Your task to perform on an android device: toggle notifications settings in the gmail app Image 0: 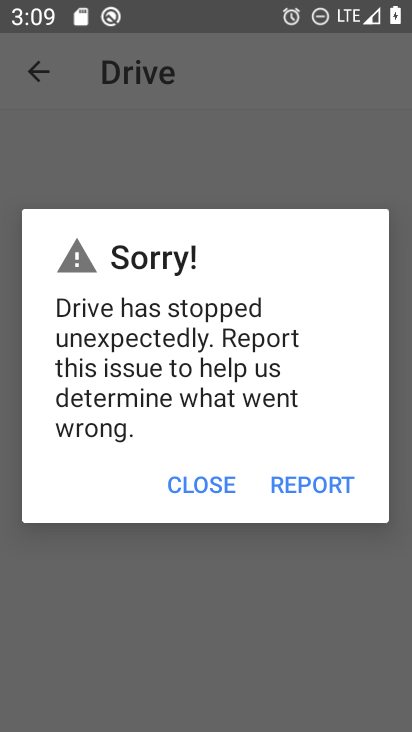
Step 0: press home button
Your task to perform on an android device: toggle notifications settings in the gmail app Image 1: 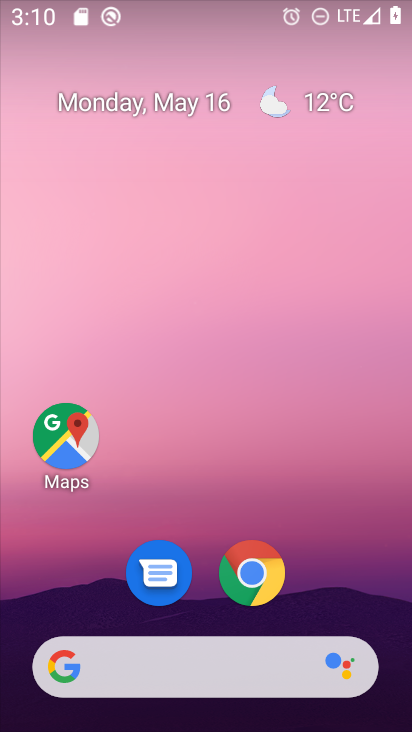
Step 1: drag from (128, 672) to (125, 138)
Your task to perform on an android device: toggle notifications settings in the gmail app Image 2: 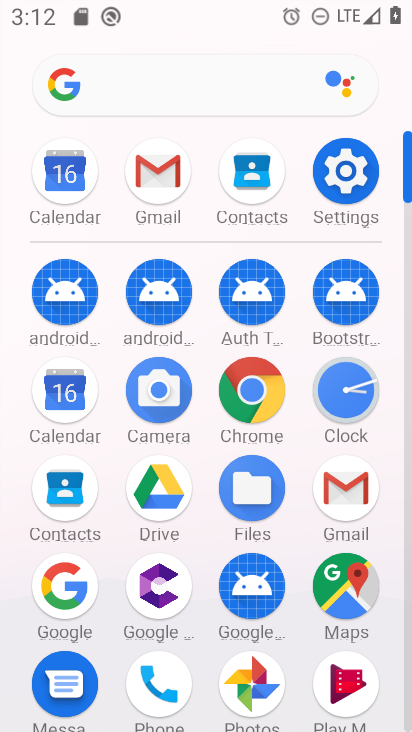
Step 2: click (344, 500)
Your task to perform on an android device: toggle notifications settings in the gmail app Image 3: 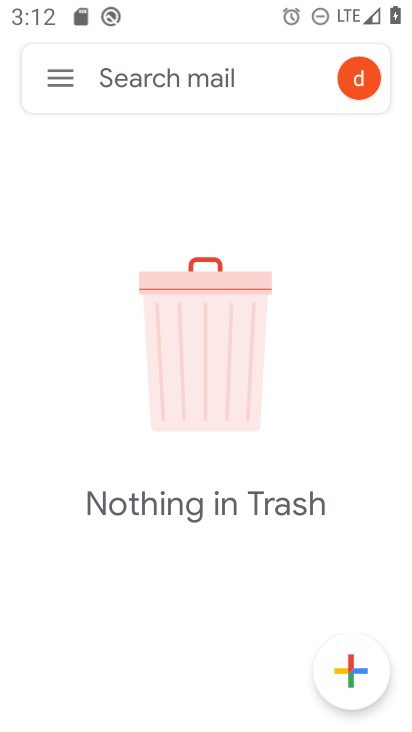
Step 3: click (79, 104)
Your task to perform on an android device: toggle notifications settings in the gmail app Image 4: 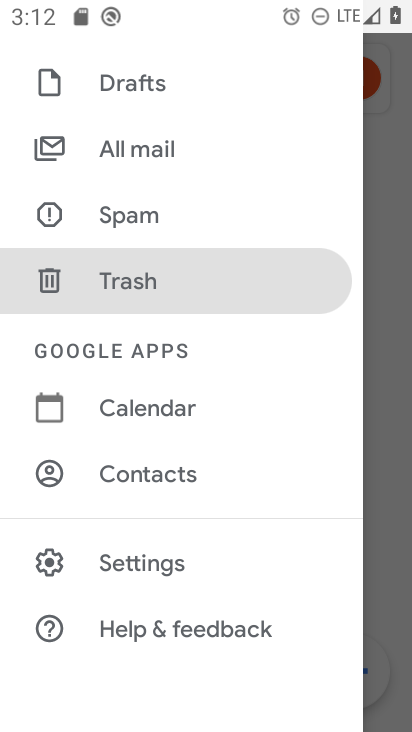
Step 4: click (134, 573)
Your task to perform on an android device: toggle notifications settings in the gmail app Image 5: 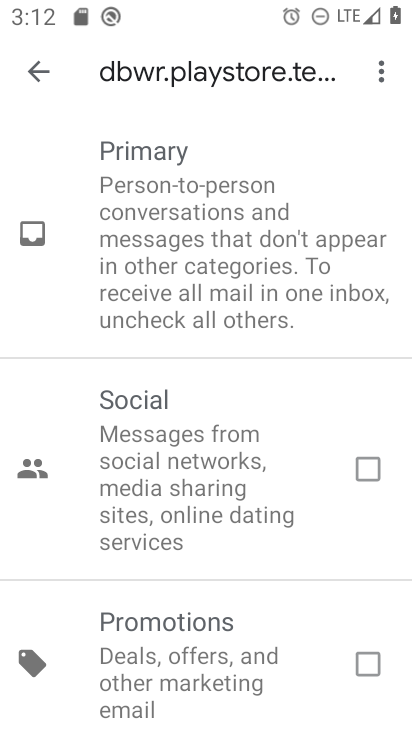
Step 5: click (34, 72)
Your task to perform on an android device: toggle notifications settings in the gmail app Image 6: 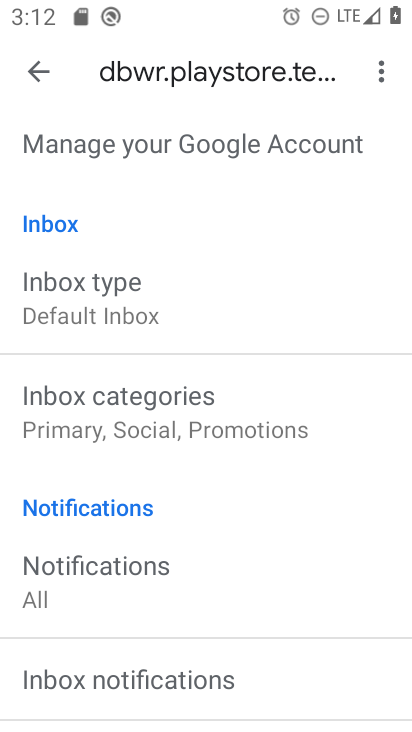
Step 6: drag from (105, 660) to (130, 159)
Your task to perform on an android device: toggle notifications settings in the gmail app Image 7: 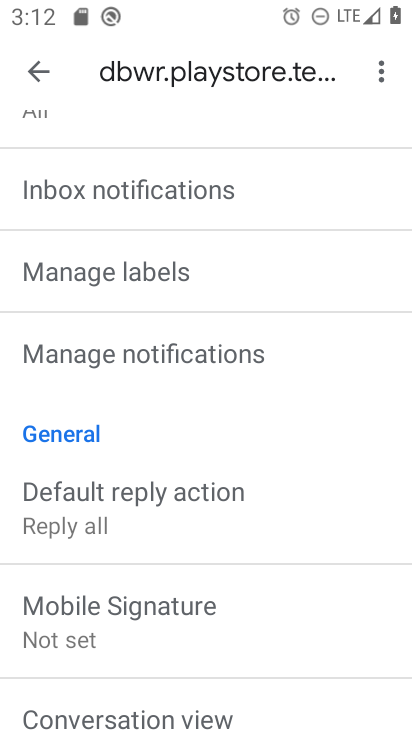
Step 7: click (124, 336)
Your task to perform on an android device: toggle notifications settings in the gmail app Image 8: 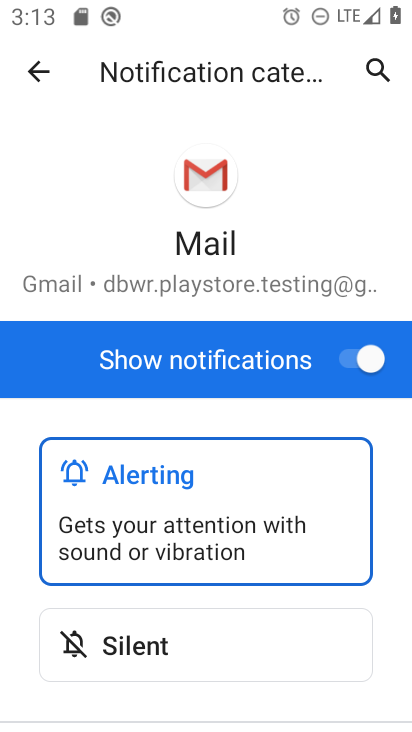
Step 8: click (348, 370)
Your task to perform on an android device: toggle notifications settings in the gmail app Image 9: 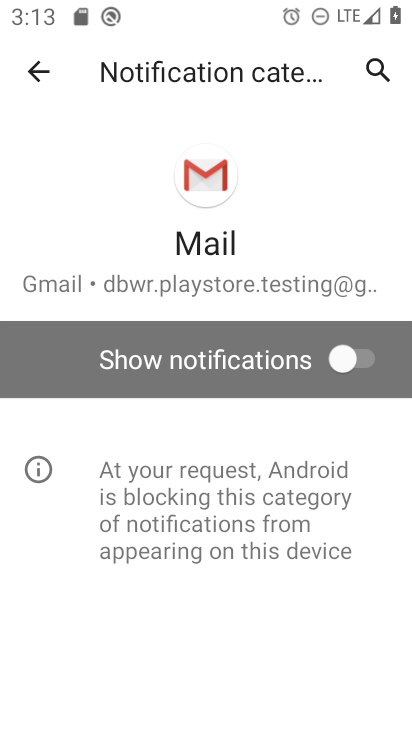
Step 9: task complete